Your task to perform on an android device: Go to Google Image 0: 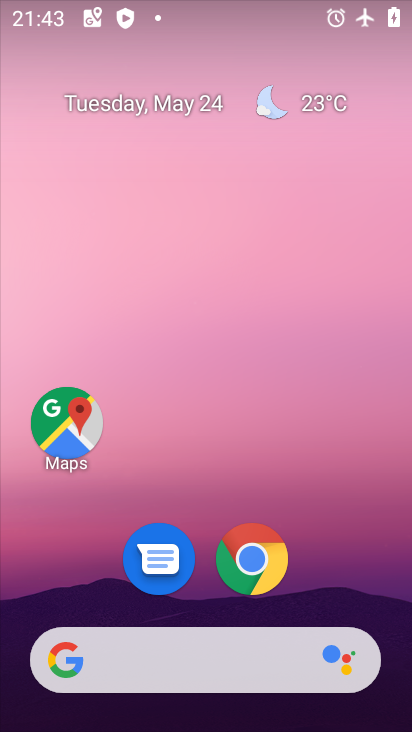
Step 0: drag from (315, 535) to (320, 64)
Your task to perform on an android device: Go to Google Image 1: 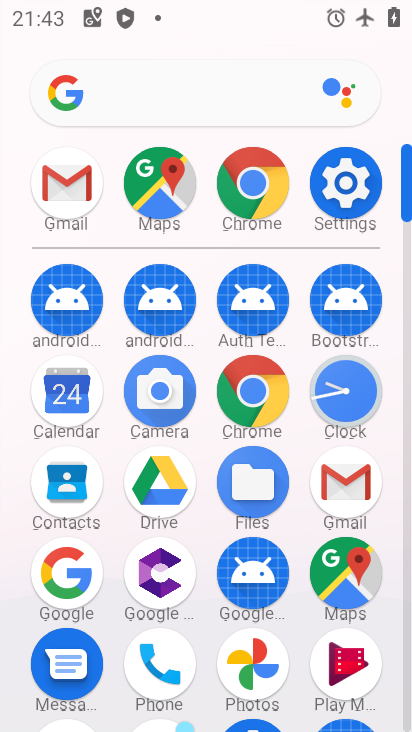
Step 1: click (75, 574)
Your task to perform on an android device: Go to Google Image 2: 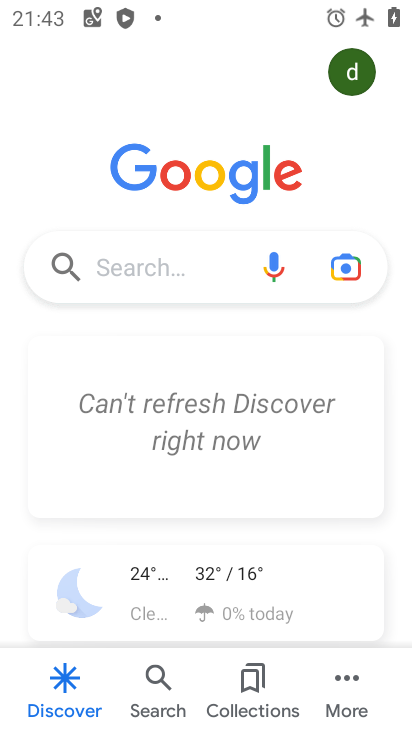
Step 2: task complete